Your task to perform on an android device: Go to CNN.com Image 0: 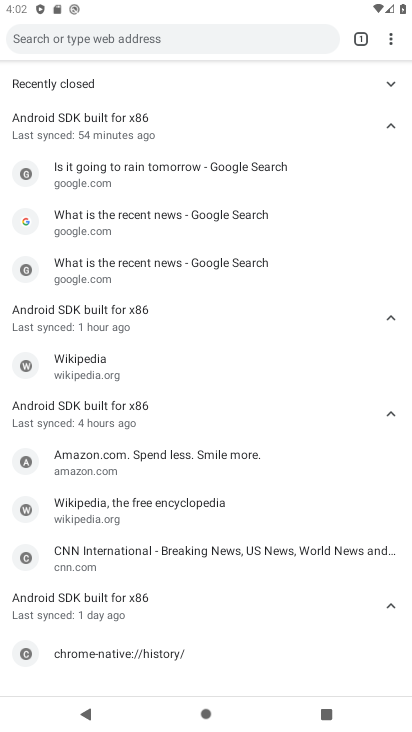
Step 0: press home button
Your task to perform on an android device: Go to CNN.com Image 1: 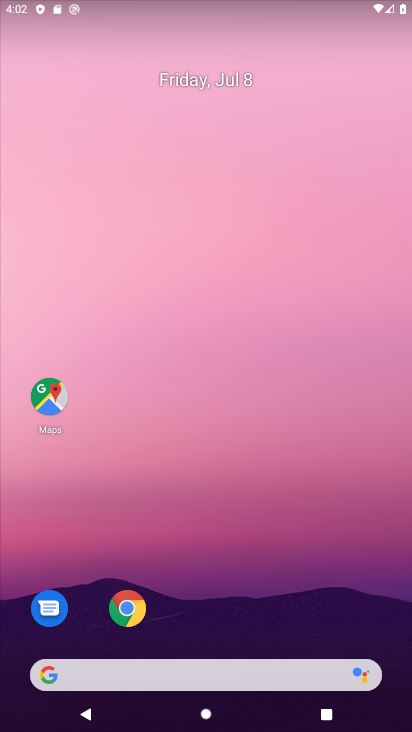
Step 1: click (121, 677)
Your task to perform on an android device: Go to CNN.com Image 2: 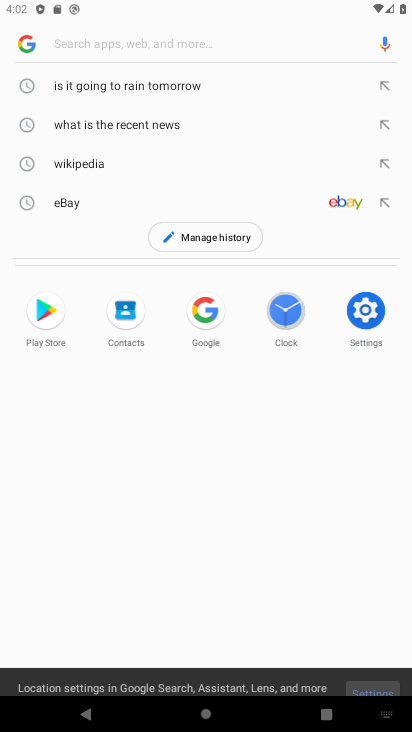
Step 2: type "CNN.com"
Your task to perform on an android device: Go to CNN.com Image 3: 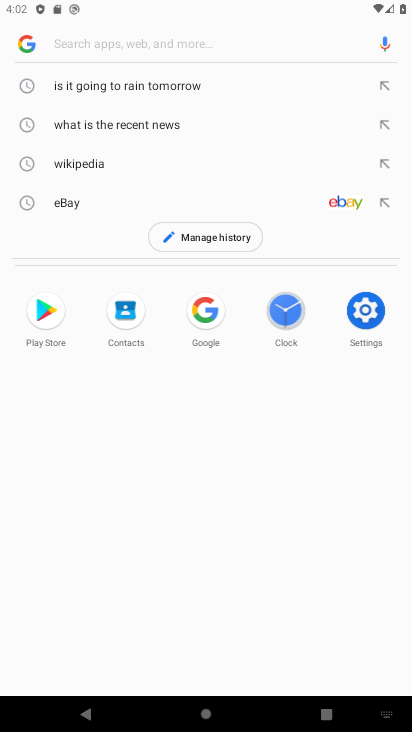
Step 3: click (81, 44)
Your task to perform on an android device: Go to CNN.com Image 4: 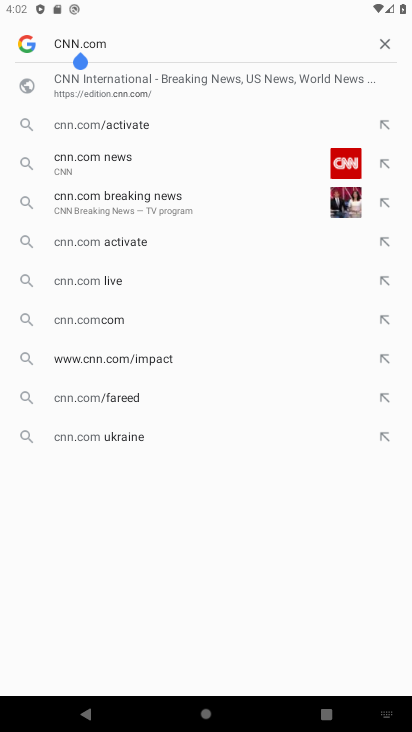
Step 4: click (91, 155)
Your task to perform on an android device: Go to CNN.com Image 5: 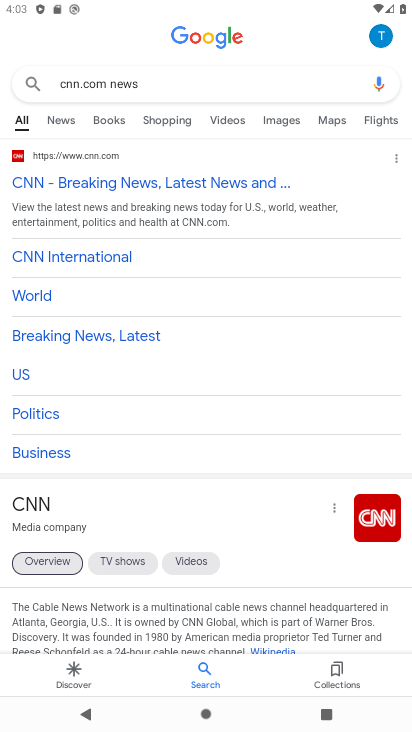
Step 5: click (48, 182)
Your task to perform on an android device: Go to CNN.com Image 6: 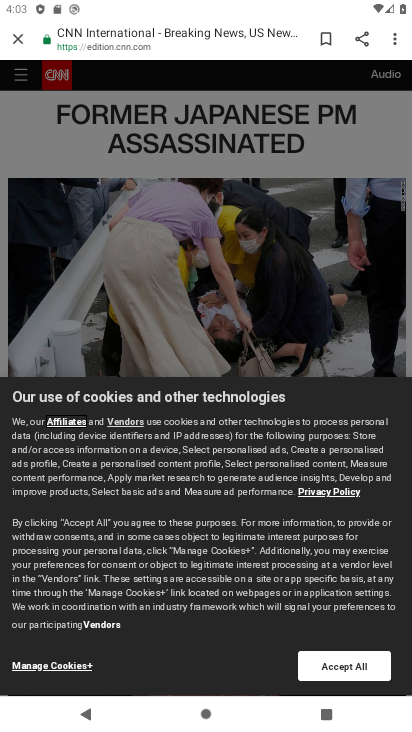
Step 6: task complete